Your task to perform on an android device: open the mobile data screen to see how much data has been used Image 0: 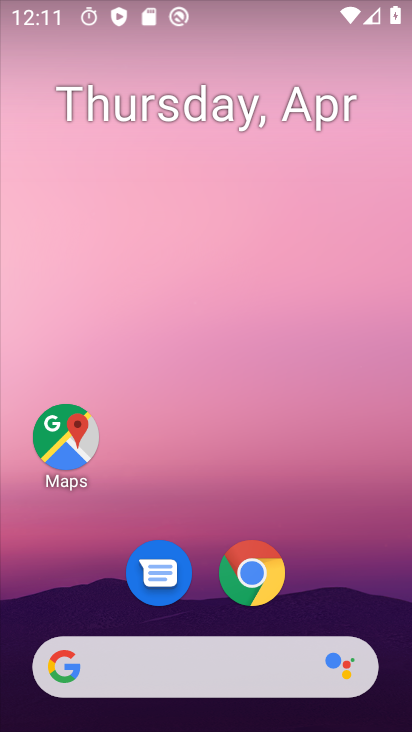
Step 0: drag from (352, 616) to (331, 176)
Your task to perform on an android device: open the mobile data screen to see how much data has been used Image 1: 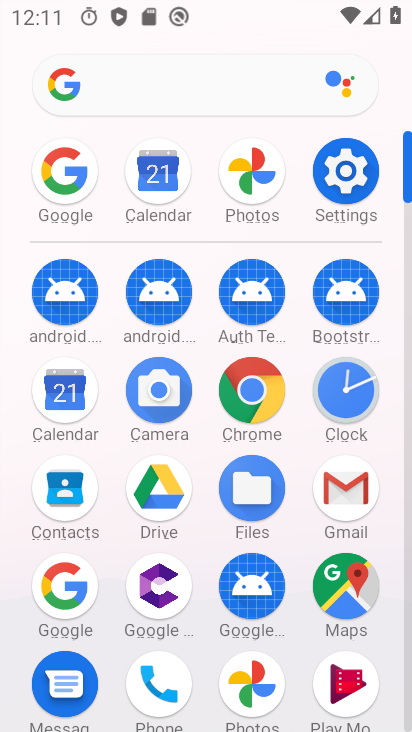
Step 1: click (330, 184)
Your task to perform on an android device: open the mobile data screen to see how much data has been used Image 2: 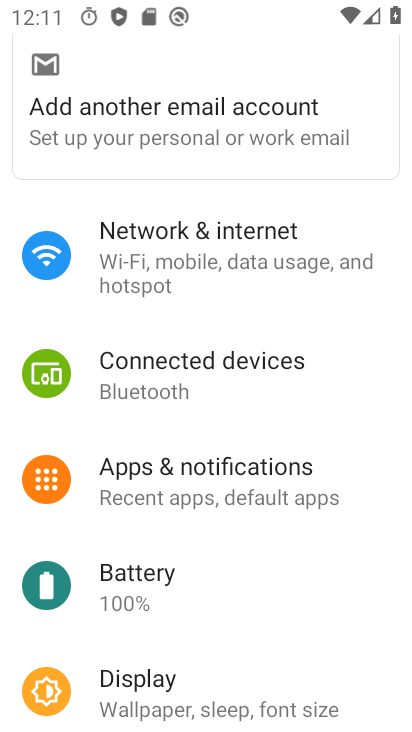
Step 2: click (172, 254)
Your task to perform on an android device: open the mobile data screen to see how much data has been used Image 3: 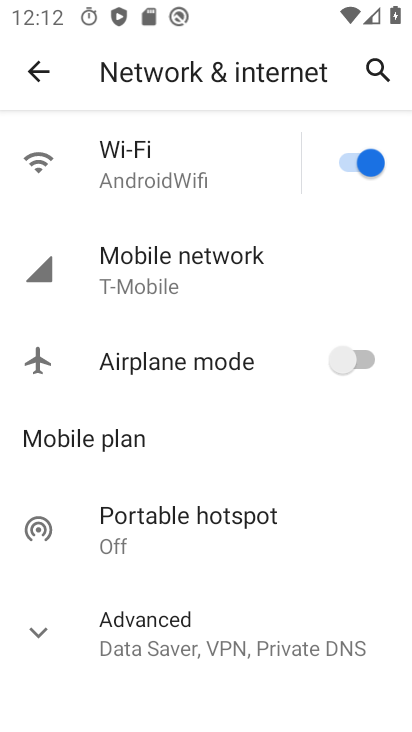
Step 3: click (168, 274)
Your task to perform on an android device: open the mobile data screen to see how much data has been used Image 4: 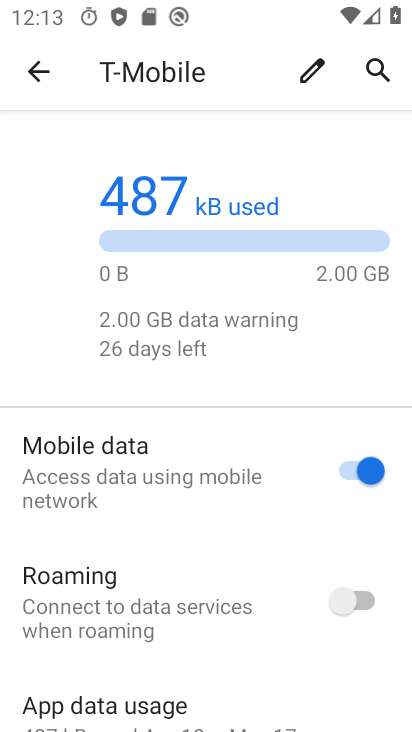
Step 4: task complete